Your task to perform on an android device: When is my next meeting? Image 0: 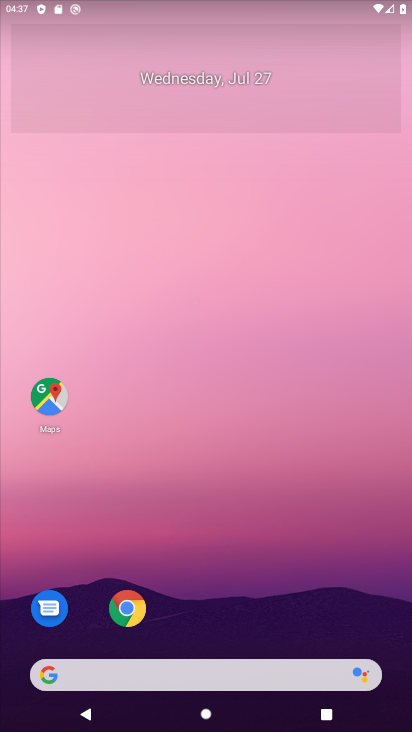
Step 0: press home button
Your task to perform on an android device: When is my next meeting? Image 1: 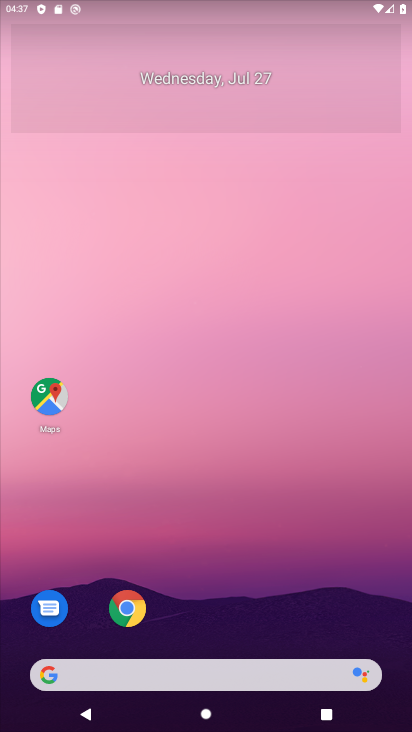
Step 1: drag from (230, 607) to (235, 297)
Your task to perform on an android device: When is my next meeting? Image 2: 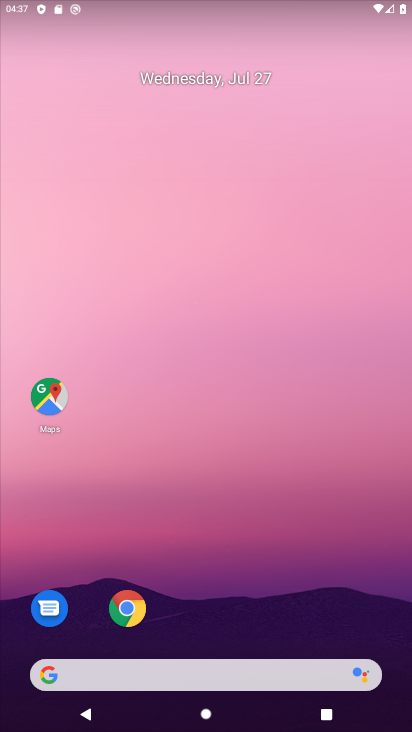
Step 2: drag from (272, 603) to (221, 174)
Your task to perform on an android device: When is my next meeting? Image 3: 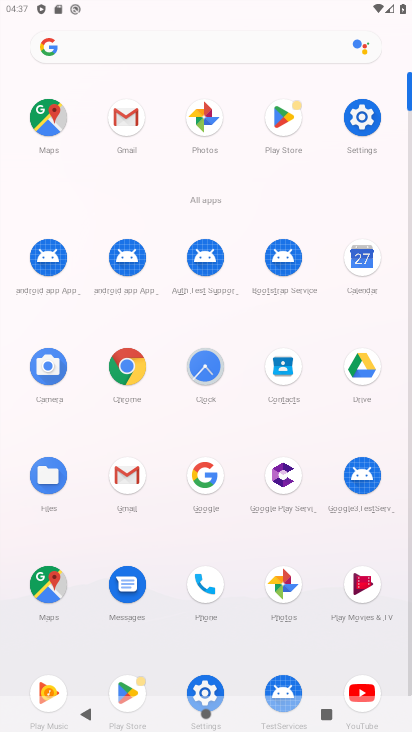
Step 3: click (361, 260)
Your task to perform on an android device: When is my next meeting? Image 4: 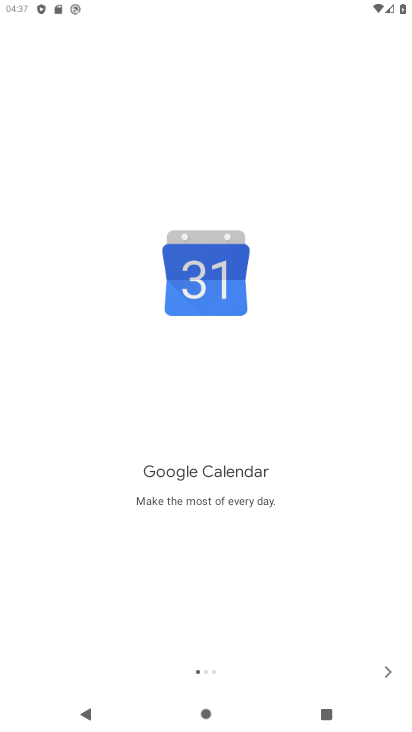
Step 4: click (391, 670)
Your task to perform on an android device: When is my next meeting? Image 5: 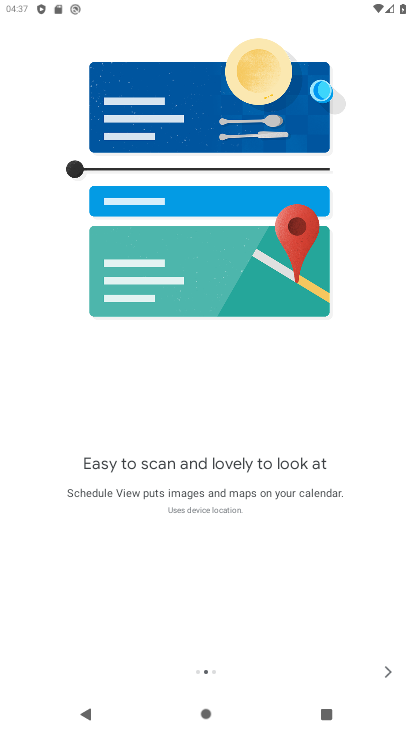
Step 5: click (391, 670)
Your task to perform on an android device: When is my next meeting? Image 6: 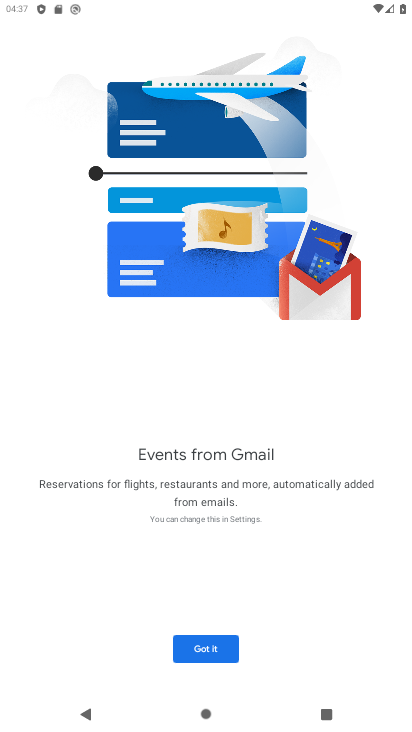
Step 6: click (186, 648)
Your task to perform on an android device: When is my next meeting? Image 7: 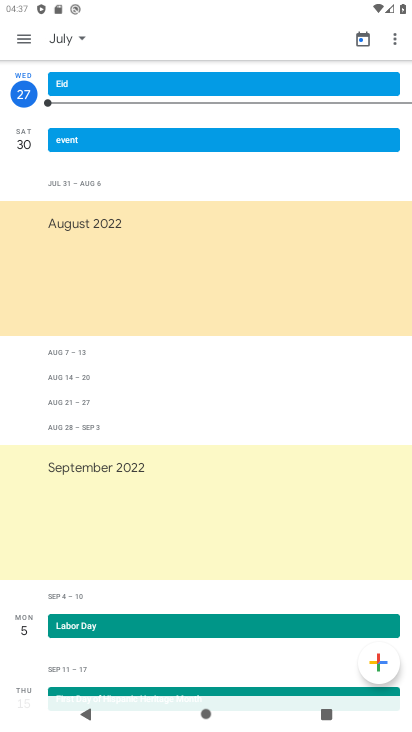
Step 7: click (17, 43)
Your task to perform on an android device: When is my next meeting? Image 8: 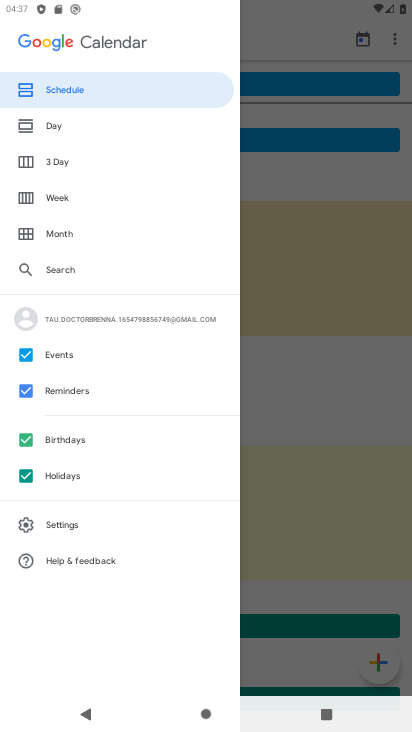
Step 8: click (56, 87)
Your task to perform on an android device: When is my next meeting? Image 9: 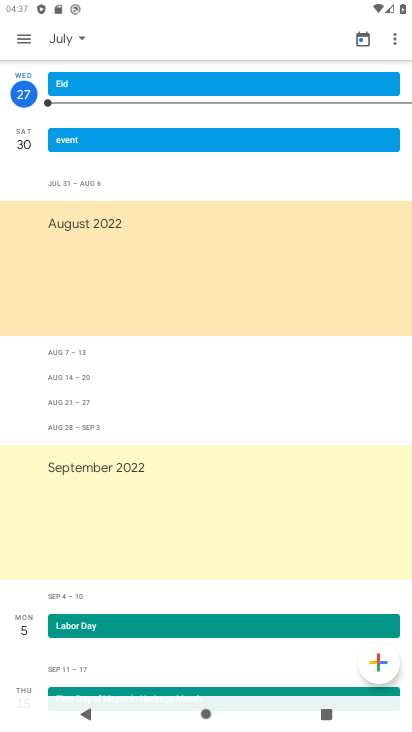
Step 9: task complete